Your task to perform on an android device: Go to location settings Image 0: 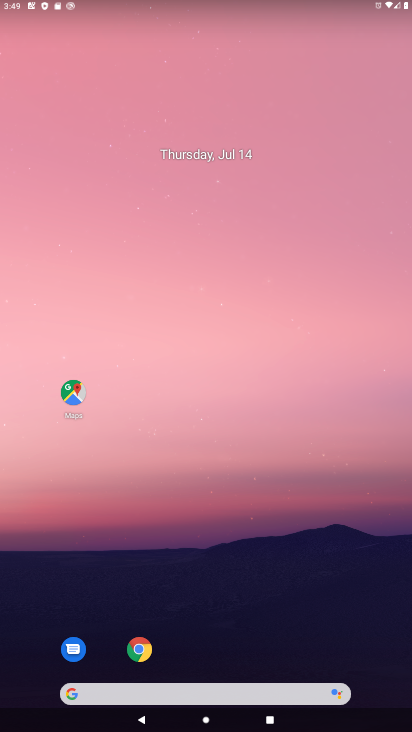
Step 0: drag from (219, 634) to (238, 130)
Your task to perform on an android device: Go to location settings Image 1: 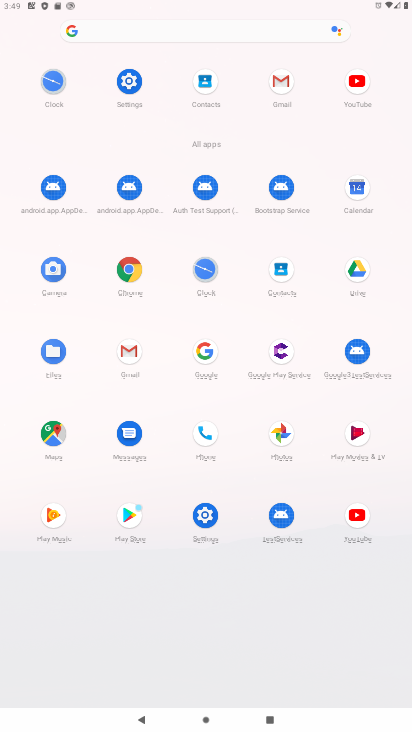
Step 1: click (199, 523)
Your task to perform on an android device: Go to location settings Image 2: 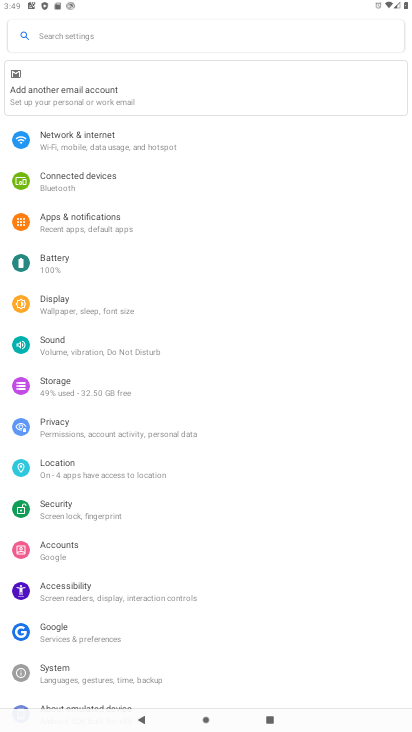
Step 2: click (93, 479)
Your task to perform on an android device: Go to location settings Image 3: 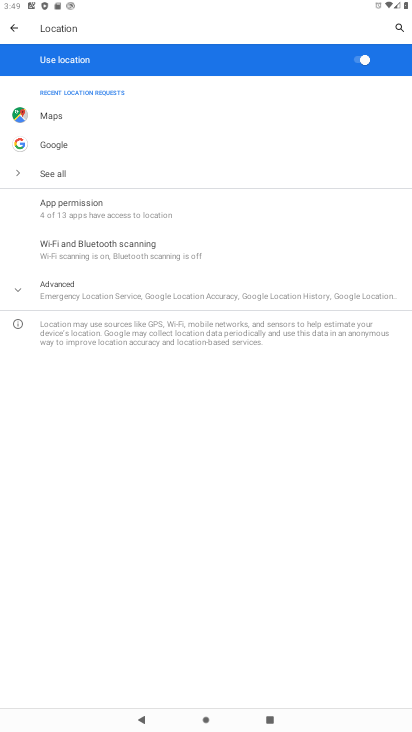
Step 3: task complete